Your task to perform on an android device: check battery use Image 0: 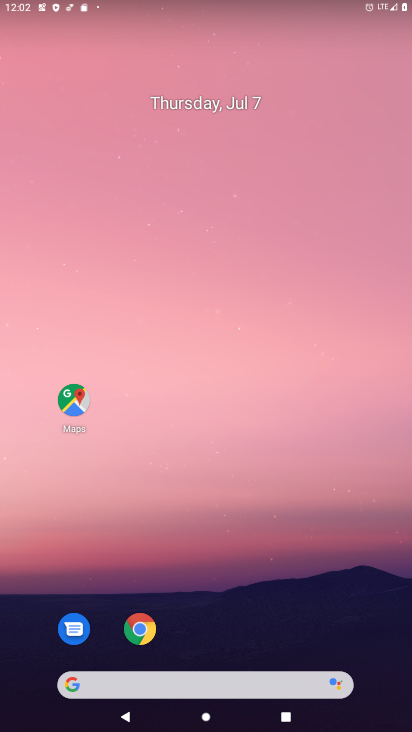
Step 0: drag from (247, 596) to (224, 98)
Your task to perform on an android device: check battery use Image 1: 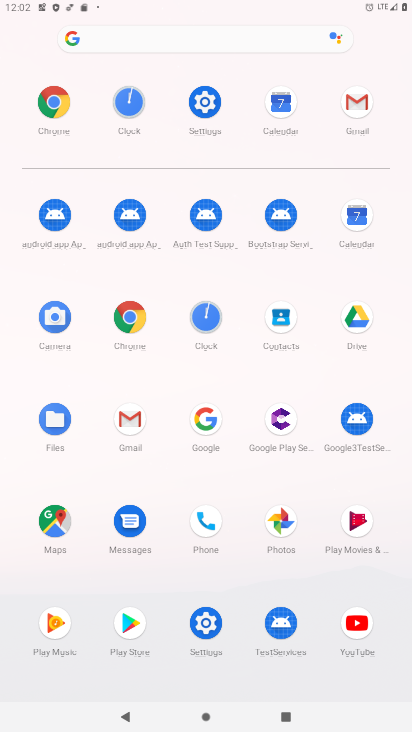
Step 1: click (206, 100)
Your task to perform on an android device: check battery use Image 2: 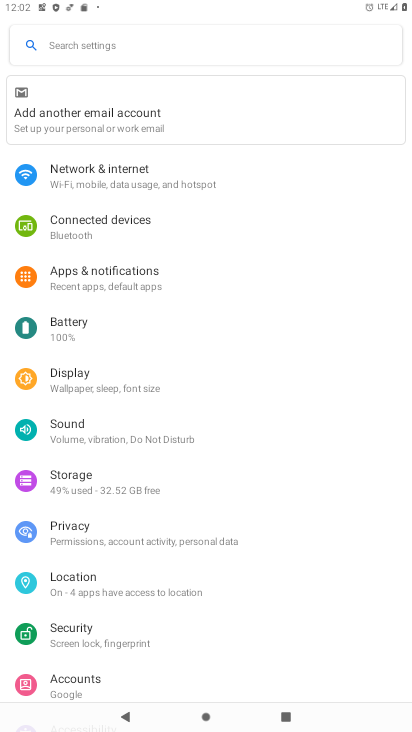
Step 2: click (77, 329)
Your task to perform on an android device: check battery use Image 3: 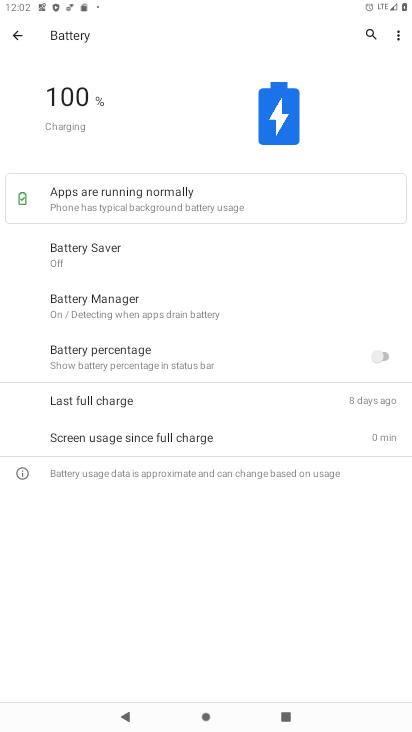
Step 3: click (402, 34)
Your task to perform on an android device: check battery use Image 4: 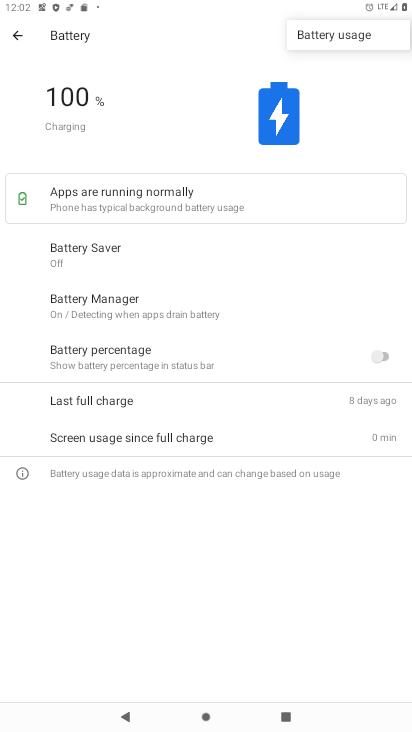
Step 4: click (351, 35)
Your task to perform on an android device: check battery use Image 5: 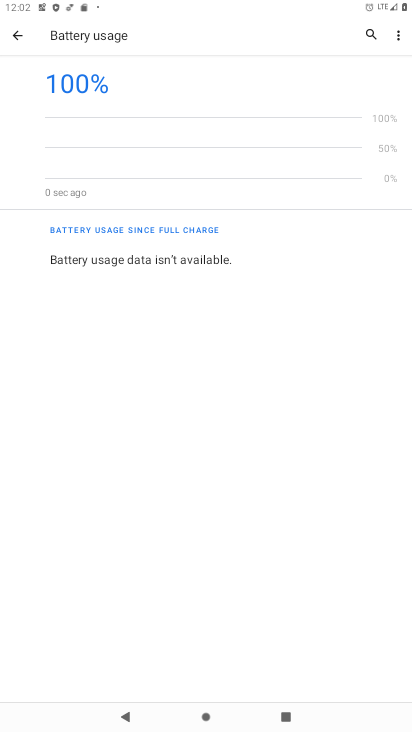
Step 5: task complete